Your task to perform on an android device: Turn off the flashlight Image 0: 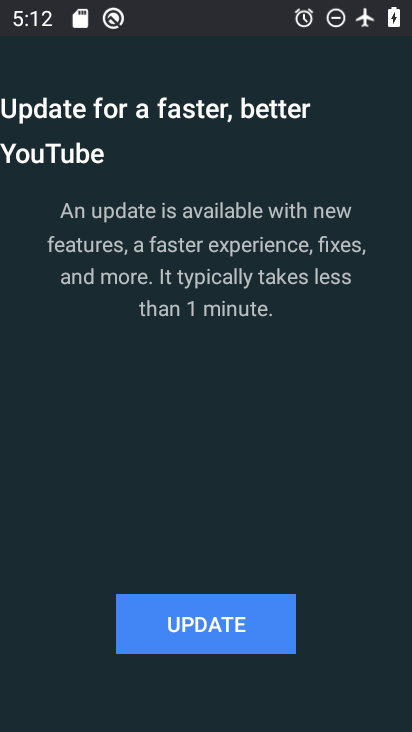
Step 0: press home button
Your task to perform on an android device: Turn off the flashlight Image 1: 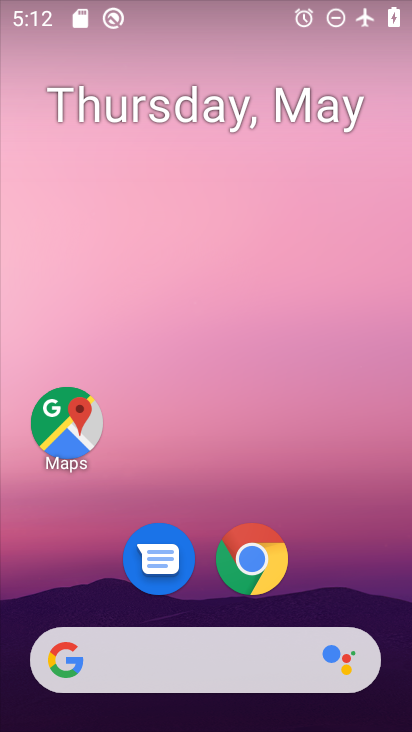
Step 1: task complete